Your task to perform on an android device: set default search engine in the chrome app Image 0: 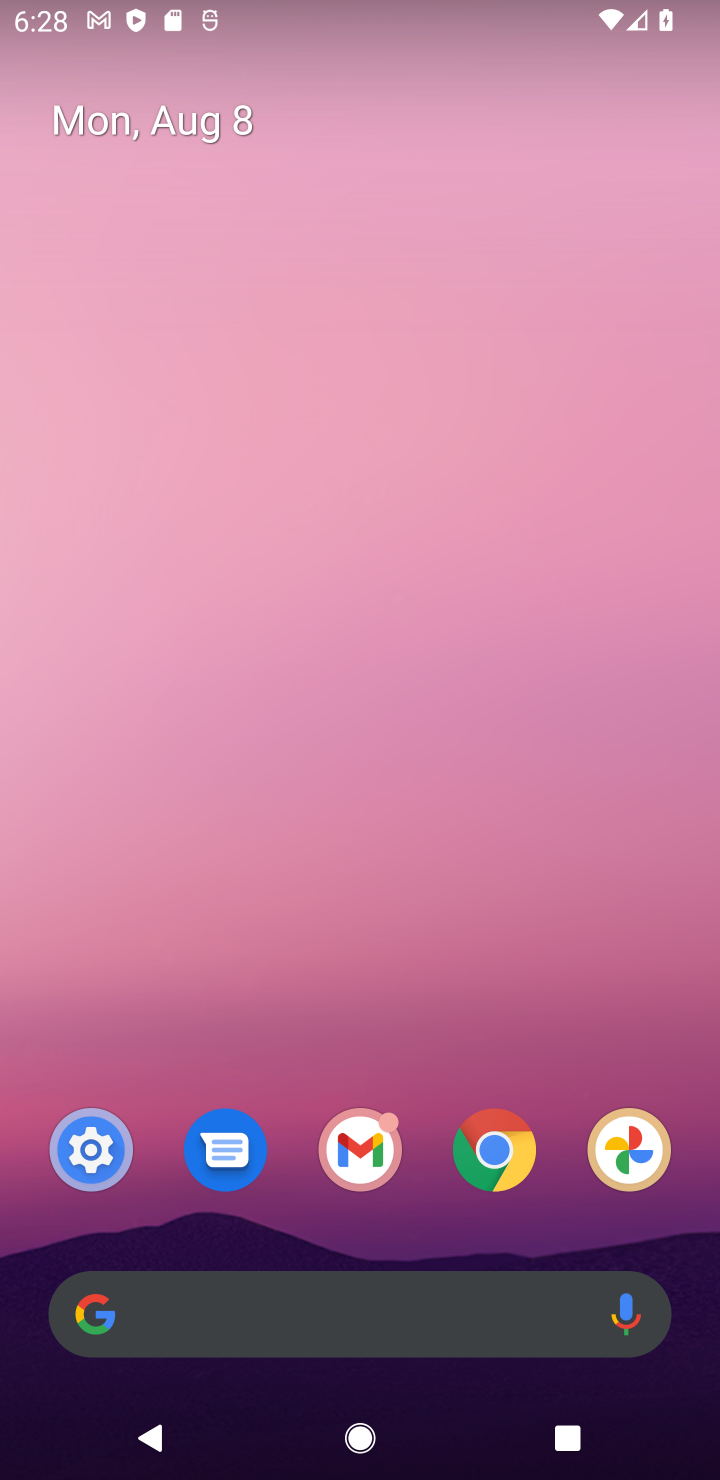
Step 0: click (488, 1197)
Your task to perform on an android device: set default search engine in the chrome app Image 1: 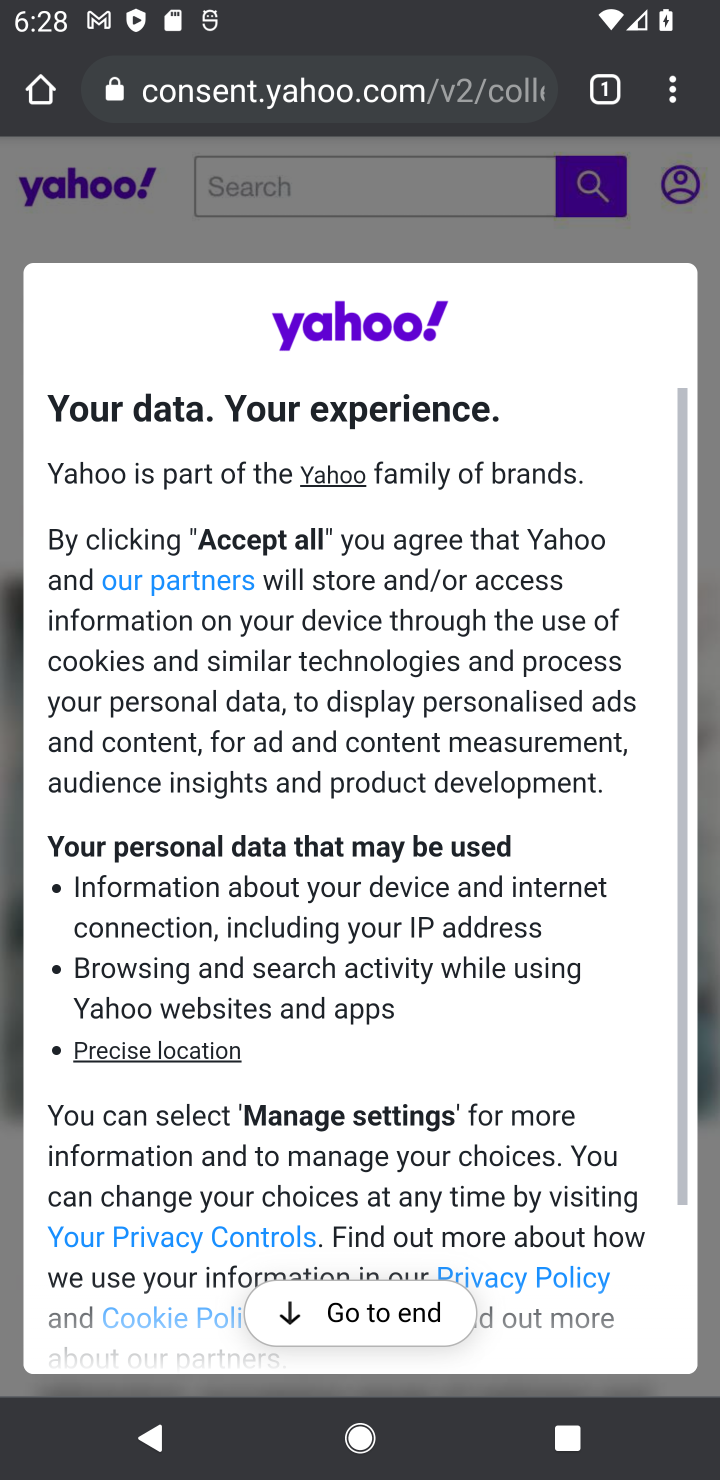
Step 1: task complete